Your task to perform on an android device: Open Google Chrome and click the shortcut for Amazon.com Image 0: 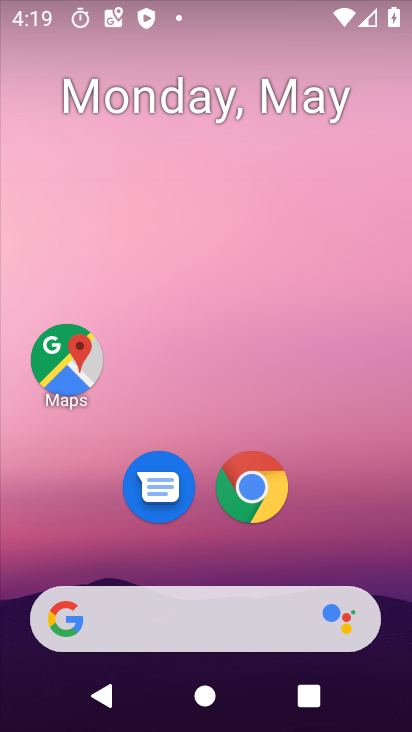
Step 0: click (253, 490)
Your task to perform on an android device: Open Google Chrome and click the shortcut for Amazon.com Image 1: 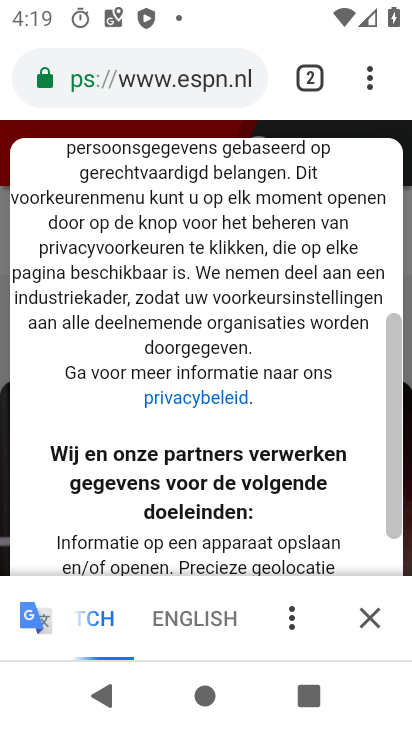
Step 1: click (372, 79)
Your task to perform on an android device: Open Google Chrome and click the shortcut for Amazon.com Image 2: 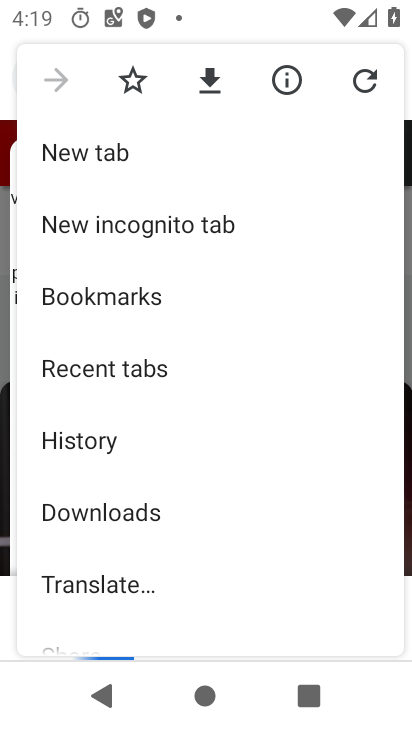
Step 2: click (111, 161)
Your task to perform on an android device: Open Google Chrome and click the shortcut for Amazon.com Image 3: 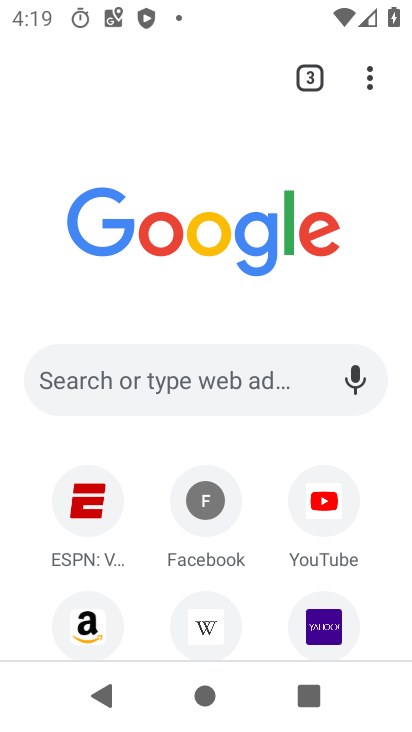
Step 3: click (86, 634)
Your task to perform on an android device: Open Google Chrome and click the shortcut for Amazon.com Image 4: 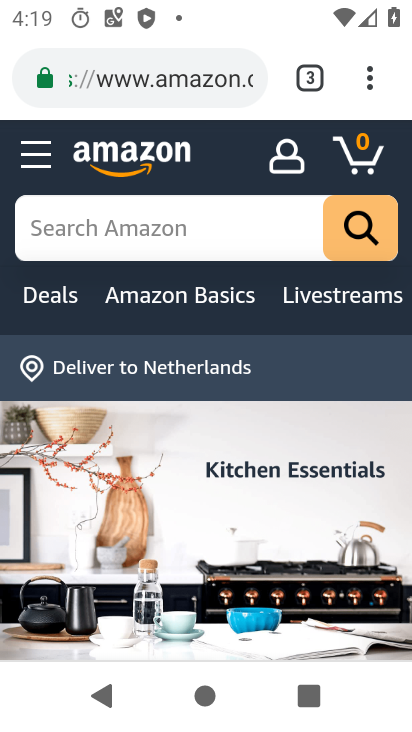
Step 4: task complete